Your task to perform on an android device: Open Google Chrome Image 0: 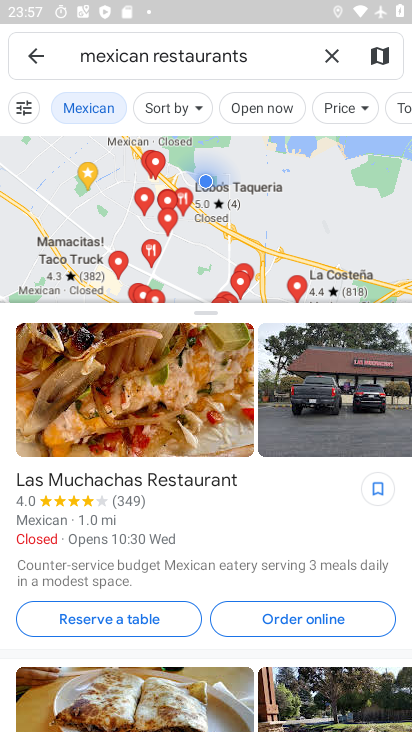
Step 0: press home button
Your task to perform on an android device: Open Google Chrome Image 1: 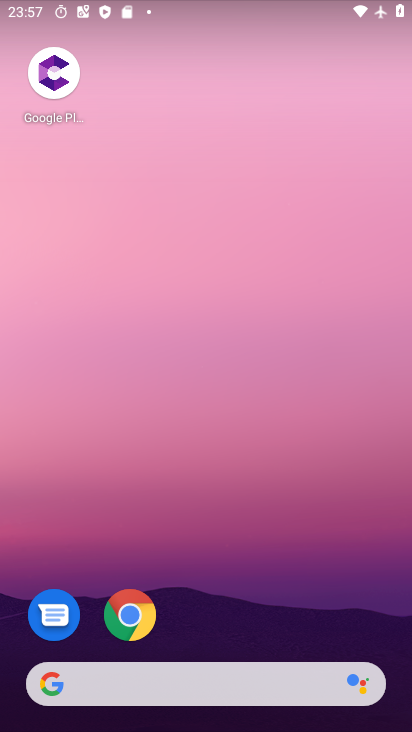
Step 1: click (115, 627)
Your task to perform on an android device: Open Google Chrome Image 2: 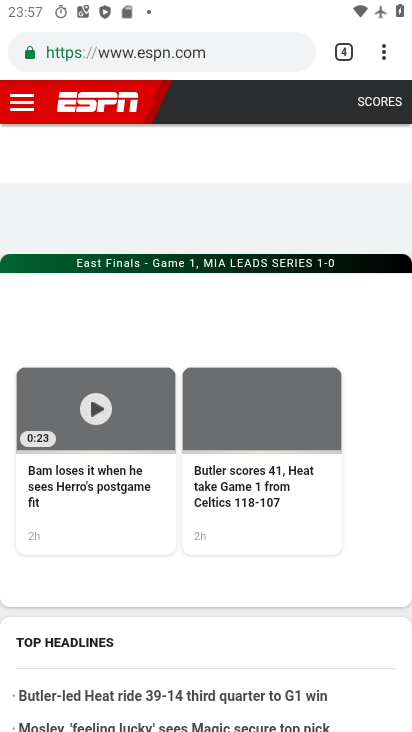
Step 2: task complete